Your task to perform on an android device: turn on airplane mode Image 0: 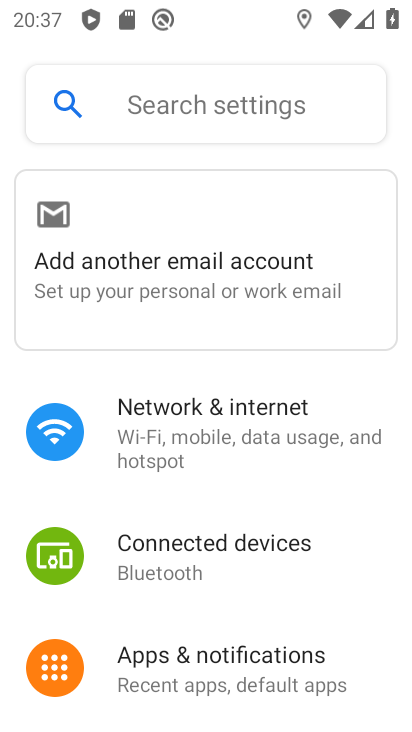
Step 0: press home button
Your task to perform on an android device: turn on airplane mode Image 1: 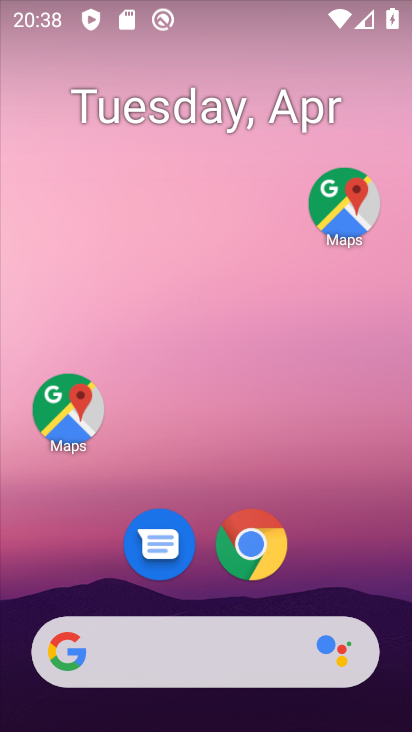
Step 1: drag from (168, 637) to (333, 76)
Your task to perform on an android device: turn on airplane mode Image 2: 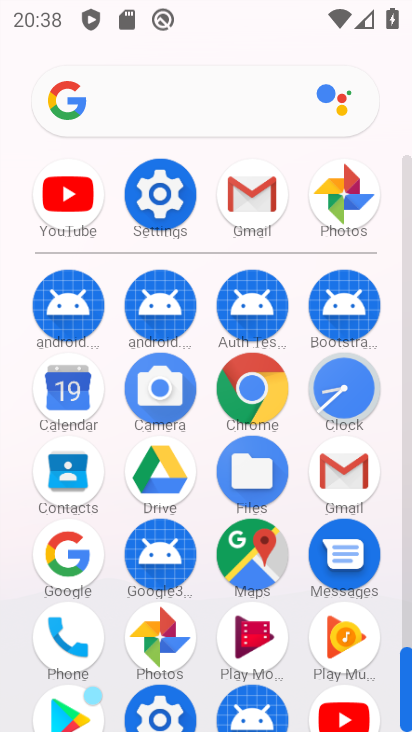
Step 2: click (152, 201)
Your task to perform on an android device: turn on airplane mode Image 3: 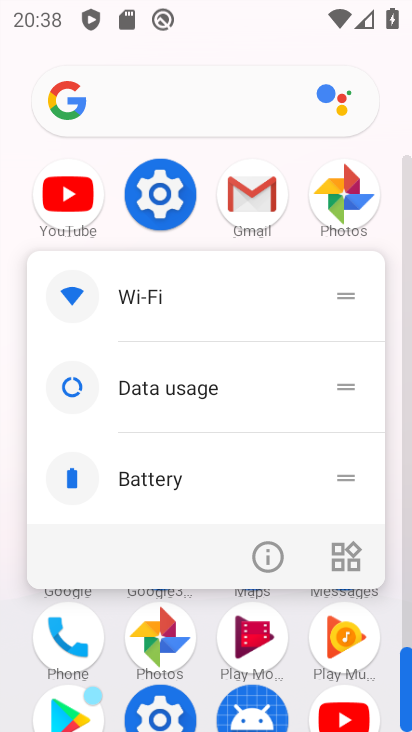
Step 3: click (167, 205)
Your task to perform on an android device: turn on airplane mode Image 4: 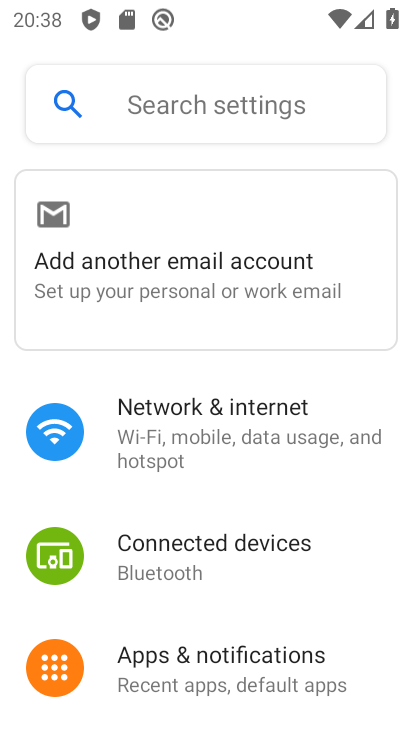
Step 4: click (195, 409)
Your task to perform on an android device: turn on airplane mode Image 5: 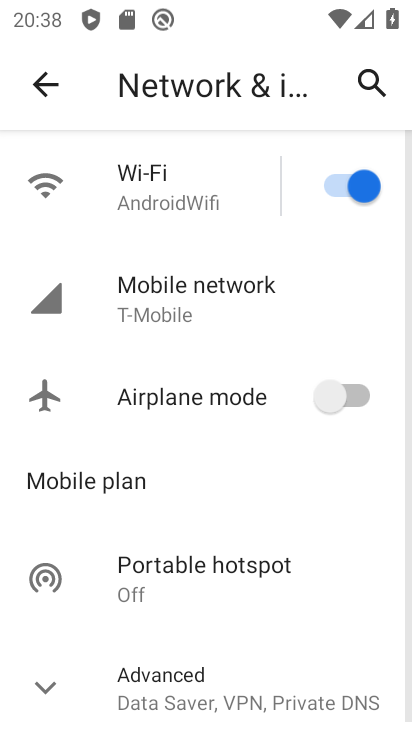
Step 5: click (352, 391)
Your task to perform on an android device: turn on airplane mode Image 6: 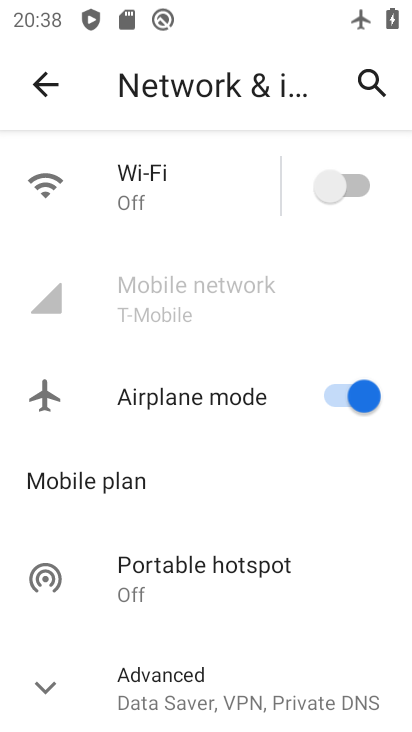
Step 6: task complete